Your task to perform on an android device: Open the phone app and click the voicemail tab. Image 0: 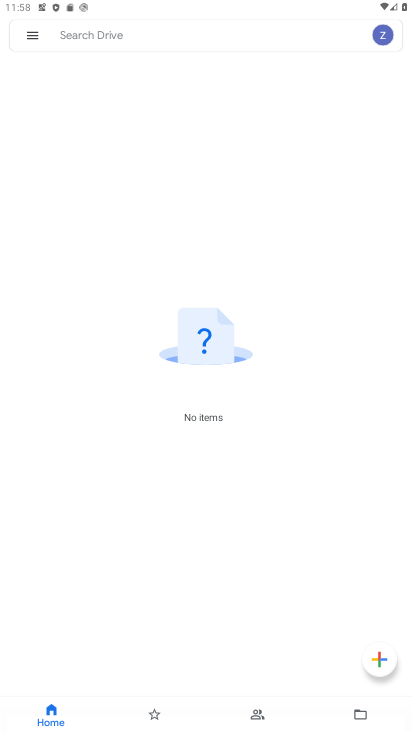
Step 0: press home button
Your task to perform on an android device: Open the phone app and click the voicemail tab. Image 1: 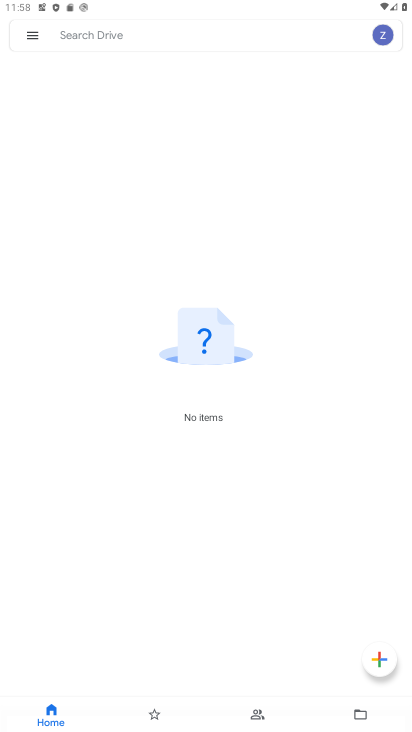
Step 1: drag from (82, 532) to (228, 0)
Your task to perform on an android device: Open the phone app and click the voicemail tab. Image 2: 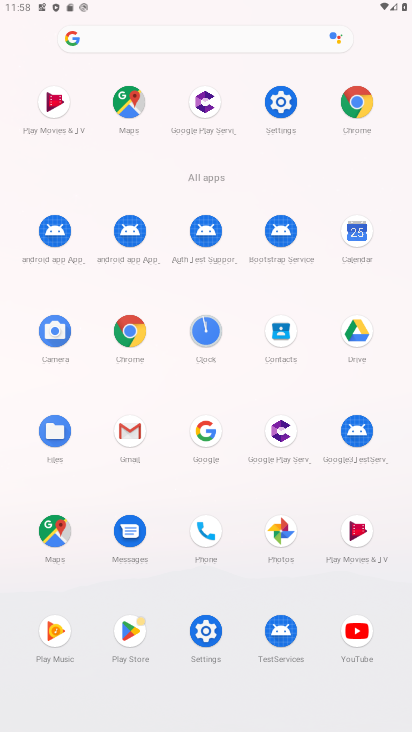
Step 2: click (210, 522)
Your task to perform on an android device: Open the phone app and click the voicemail tab. Image 3: 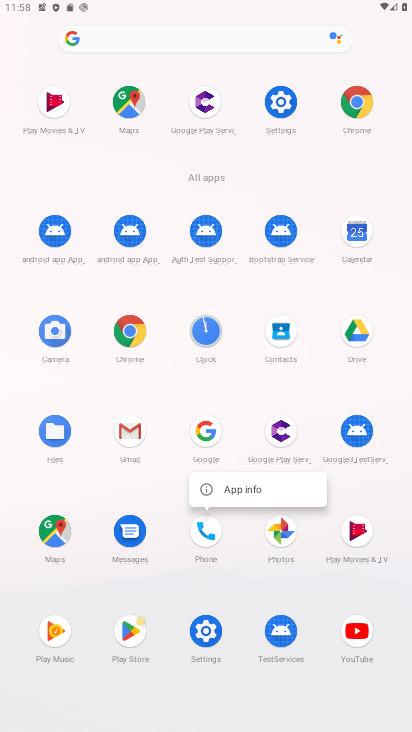
Step 3: click (219, 491)
Your task to perform on an android device: Open the phone app and click the voicemail tab. Image 4: 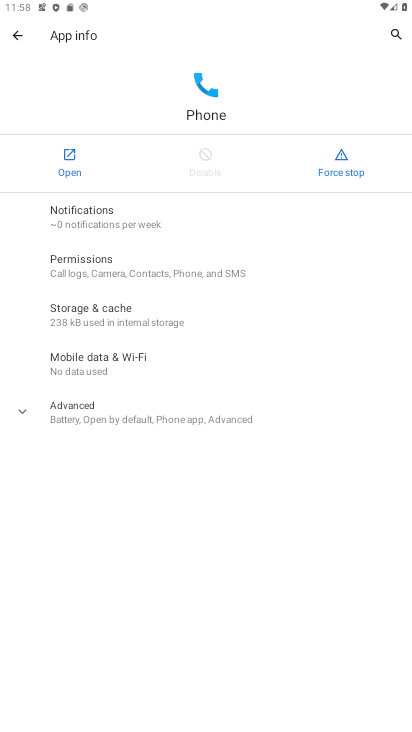
Step 4: click (61, 159)
Your task to perform on an android device: Open the phone app and click the voicemail tab. Image 5: 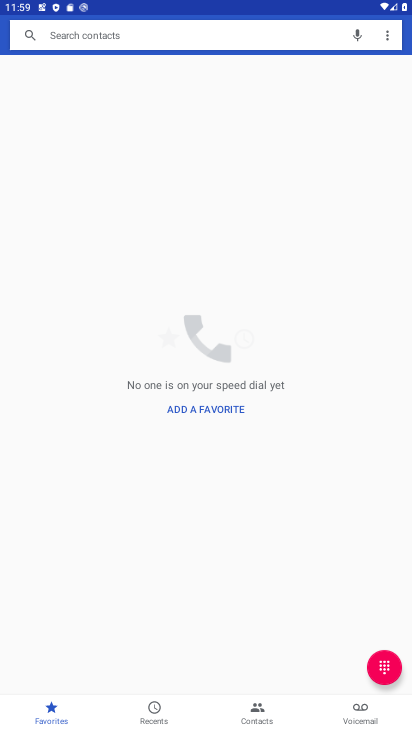
Step 5: drag from (249, 536) to (272, 334)
Your task to perform on an android device: Open the phone app and click the voicemail tab. Image 6: 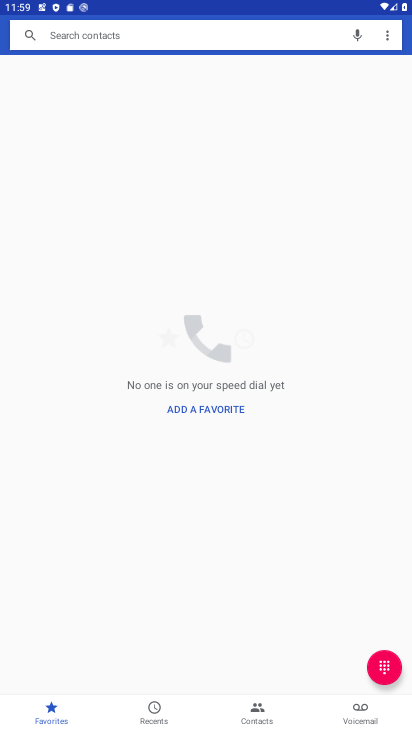
Step 6: click (348, 709)
Your task to perform on an android device: Open the phone app and click the voicemail tab. Image 7: 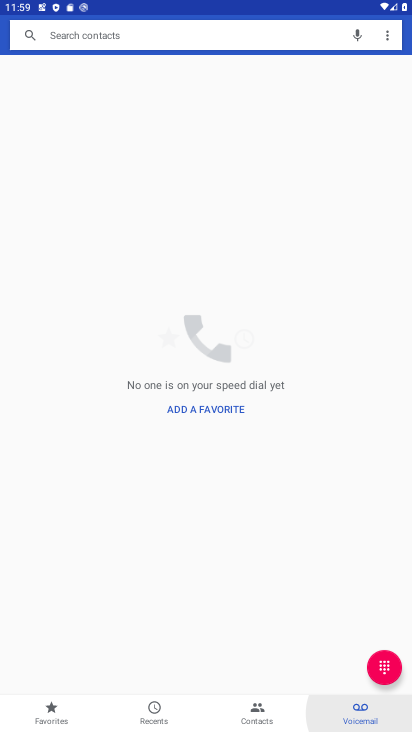
Step 7: task complete